Your task to perform on an android device: Open the calendar and show me this week's events Image 0: 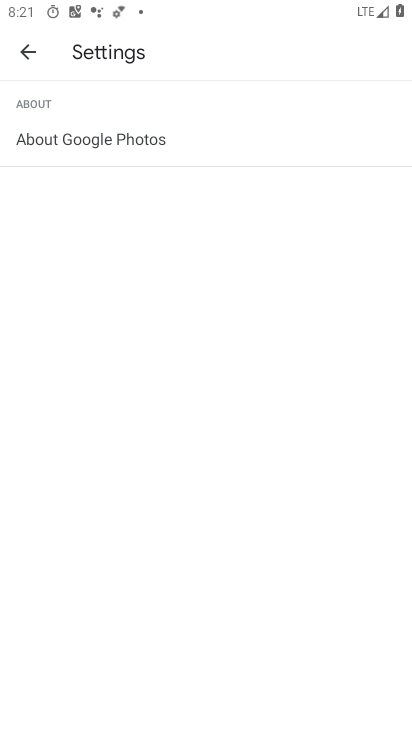
Step 0: press home button
Your task to perform on an android device: Open the calendar and show me this week's events Image 1: 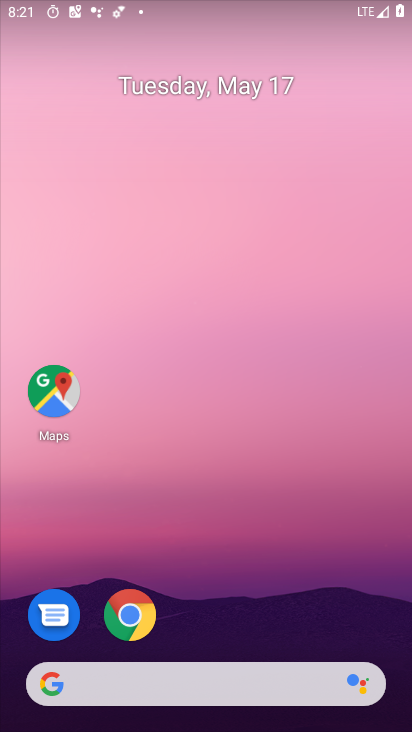
Step 1: drag from (262, 567) to (336, 101)
Your task to perform on an android device: Open the calendar and show me this week's events Image 2: 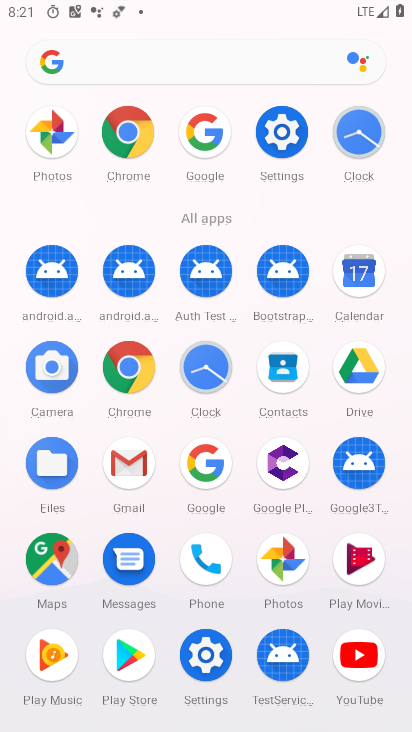
Step 2: drag from (153, 570) to (190, 395)
Your task to perform on an android device: Open the calendar and show me this week's events Image 3: 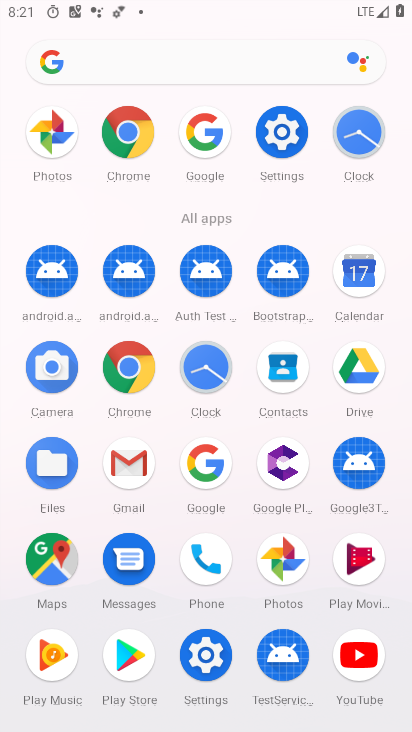
Step 3: click (364, 301)
Your task to perform on an android device: Open the calendar and show me this week's events Image 4: 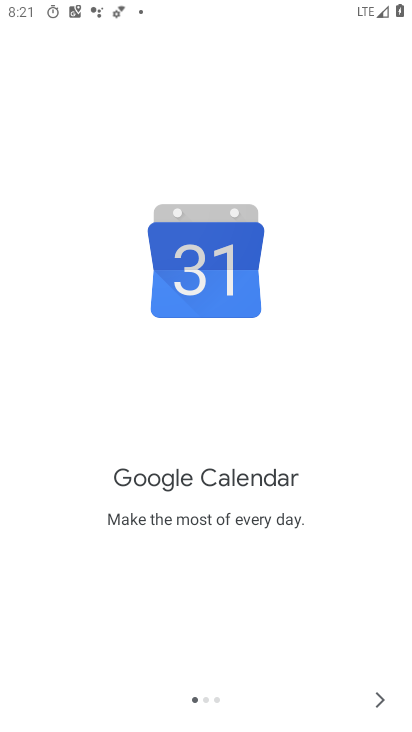
Step 4: click (370, 713)
Your task to perform on an android device: Open the calendar and show me this week's events Image 5: 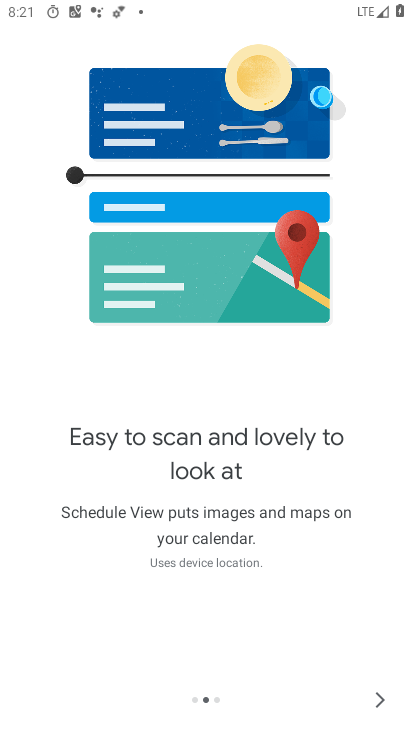
Step 5: click (370, 707)
Your task to perform on an android device: Open the calendar and show me this week's events Image 6: 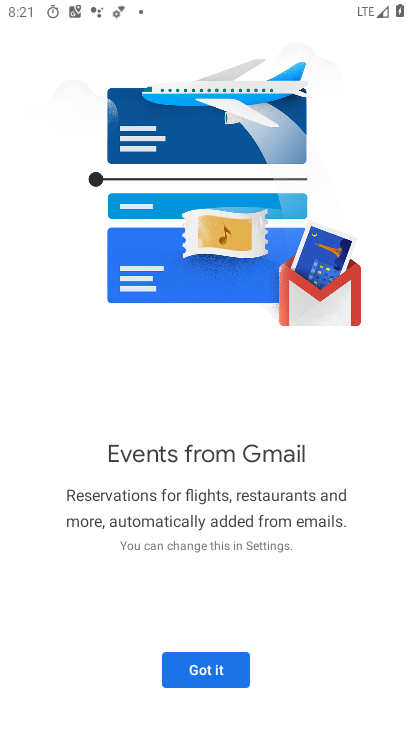
Step 6: click (188, 678)
Your task to perform on an android device: Open the calendar and show me this week's events Image 7: 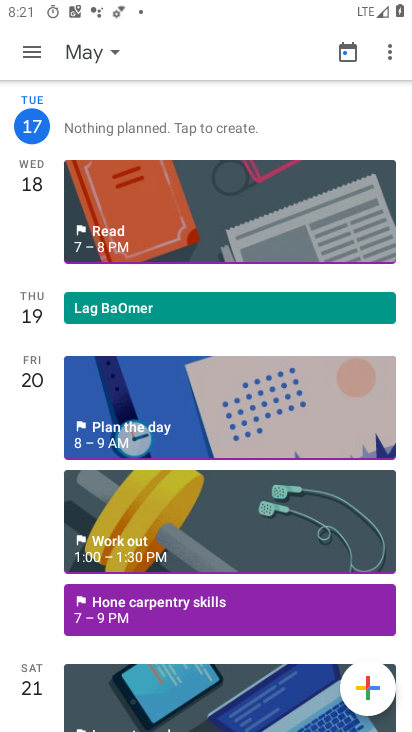
Step 7: click (94, 37)
Your task to perform on an android device: Open the calendar and show me this week's events Image 8: 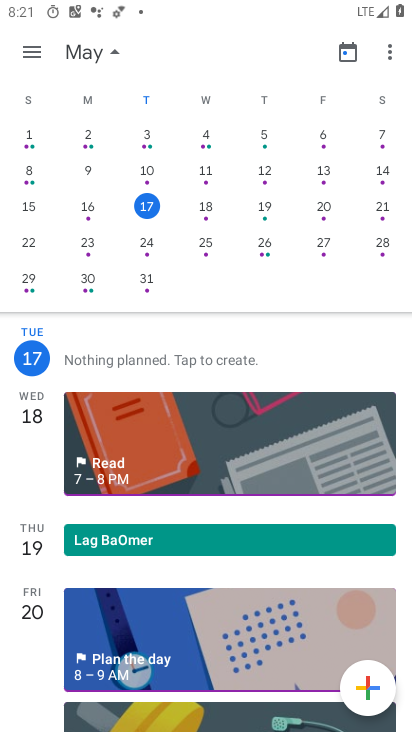
Step 8: click (201, 205)
Your task to perform on an android device: Open the calendar and show me this week's events Image 9: 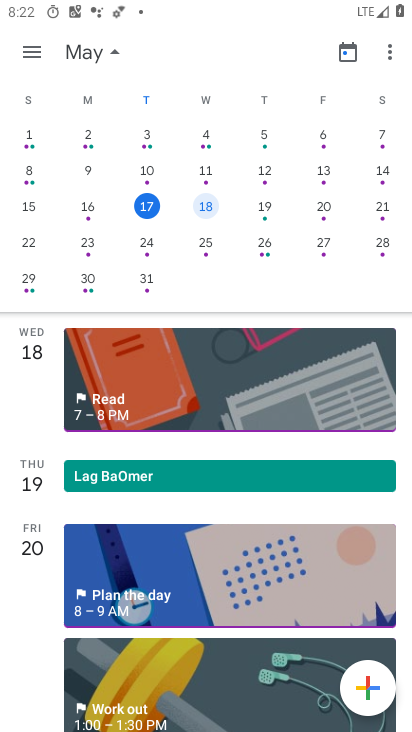
Step 9: click (269, 215)
Your task to perform on an android device: Open the calendar and show me this week's events Image 10: 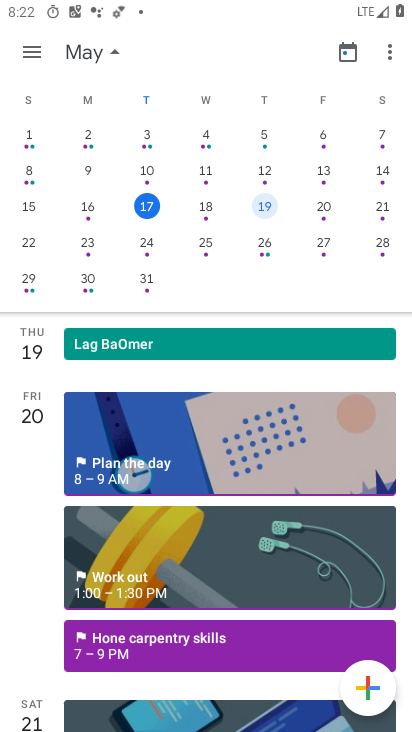
Step 10: click (311, 213)
Your task to perform on an android device: Open the calendar and show me this week's events Image 11: 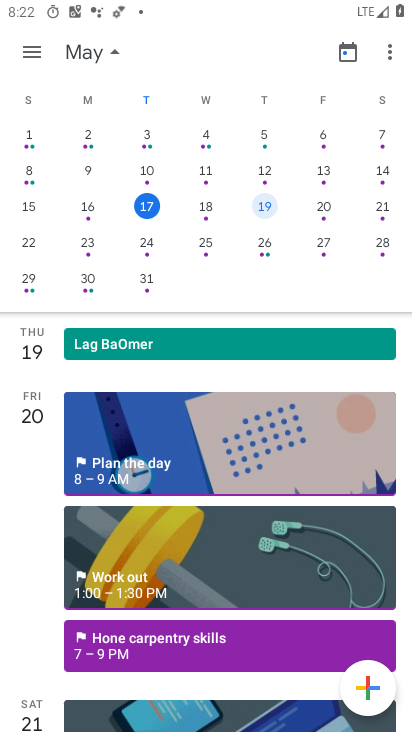
Step 11: click (319, 213)
Your task to perform on an android device: Open the calendar and show me this week's events Image 12: 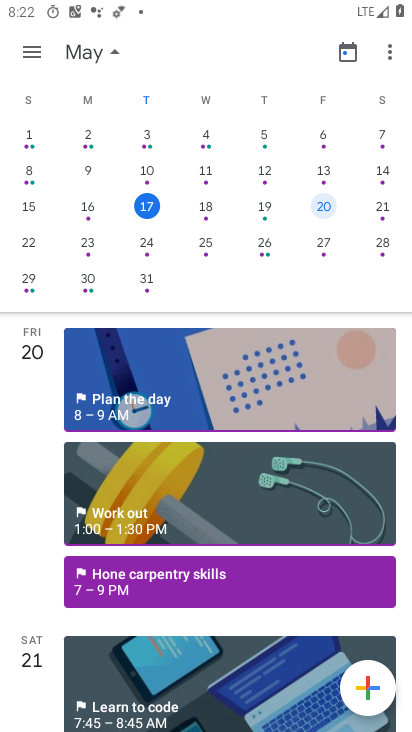
Step 12: click (380, 214)
Your task to perform on an android device: Open the calendar and show me this week's events Image 13: 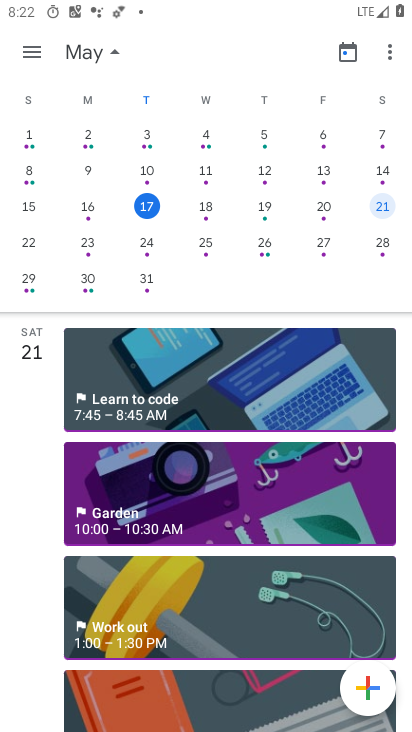
Step 13: task complete